Your task to perform on an android device: turn off notifications settings in the gmail app Image 0: 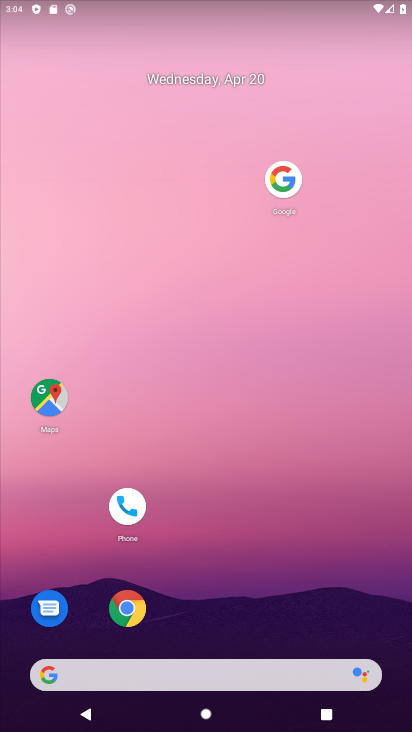
Step 0: drag from (187, 635) to (292, 73)
Your task to perform on an android device: turn off notifications settings in the gmail app Image 1: 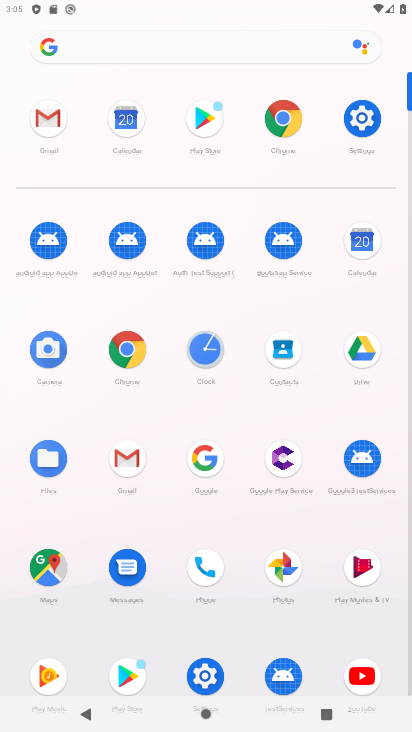
Step 1: click (133, 466)
Your task to perform on an android device: turn off notifications settings in the gmail app Image 2: 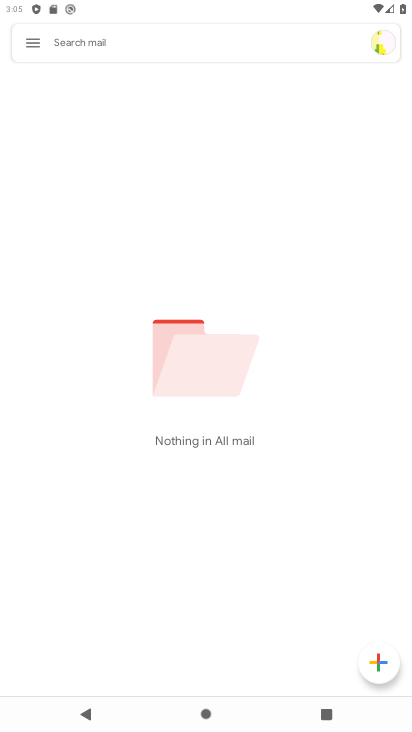
Step 2: click (31, 41)
Your task to perform on an android device: turn off notifications settings in the gmail app Image 3: 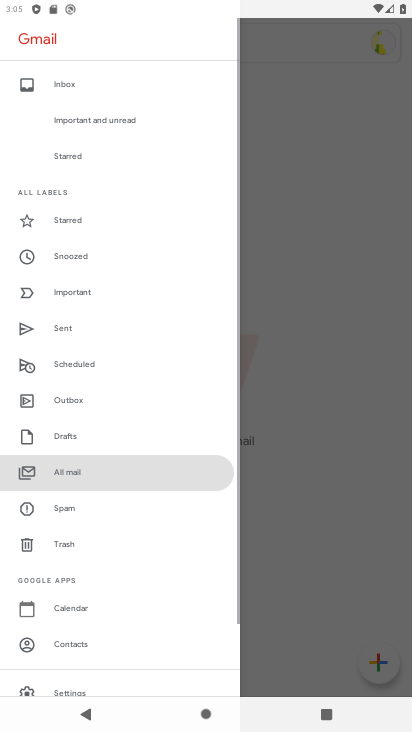
Step 3: drag from (84, 677) to (145, 95)
Your task to perform on an android device: turn off notifications settings in the gmail app Image 4: 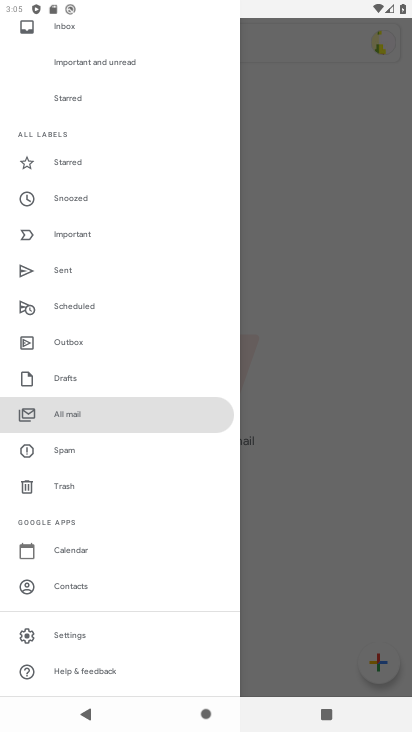
Step 4: click (82, 638)
Your task to perform on an android device: turn off notifications settings in the gmail app Image 5: 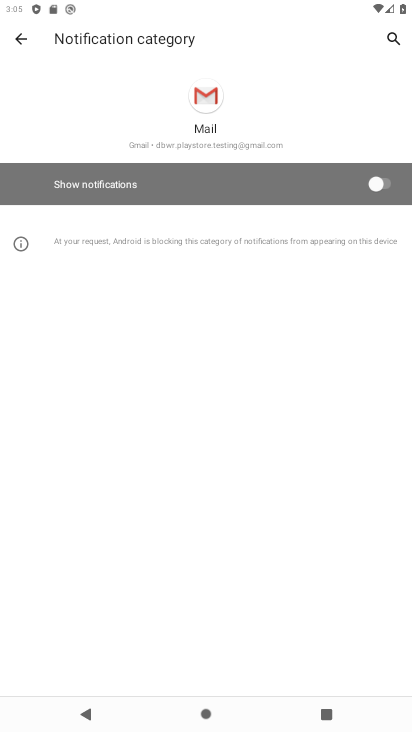
Step 5: task complete